Your task to perform on an android device: Open my contact list Image 0: 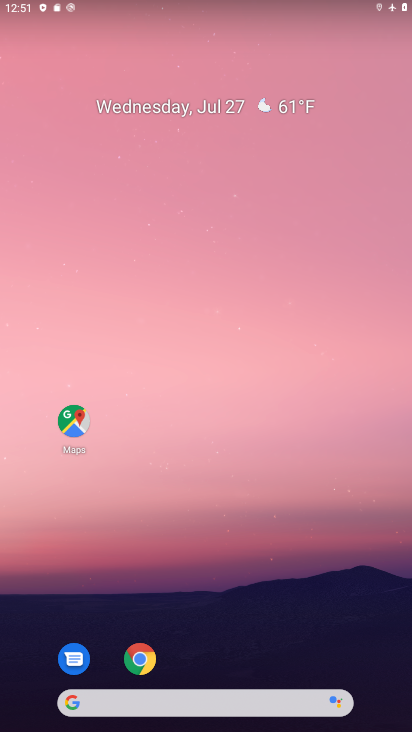
Step 0: drag from (174, 574) to (160, 115)
Your task to perform on an android device: Open my contact list Image 1: 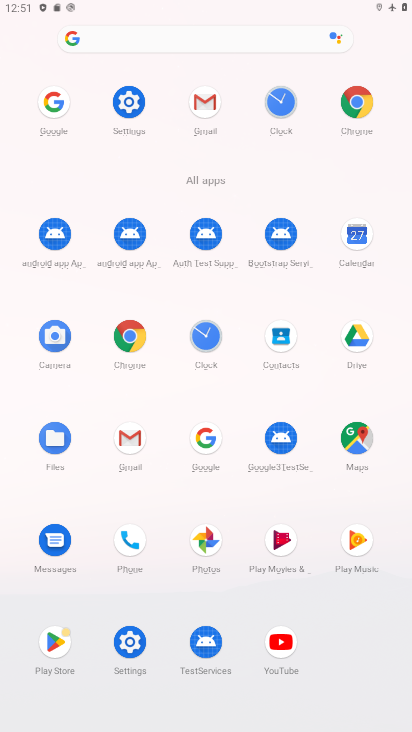
Step 1: click (271, 353)
Your task to perform on an android device: Open my contact list Image 2: 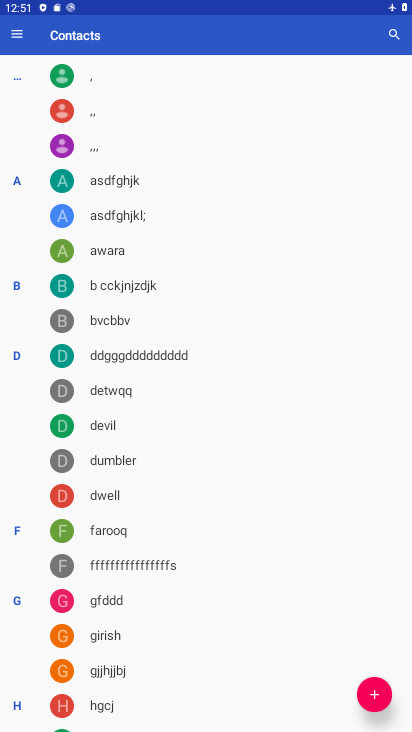
Step 2: task complete